Your task to perform on an android device: turn on sleep mode Image 0: 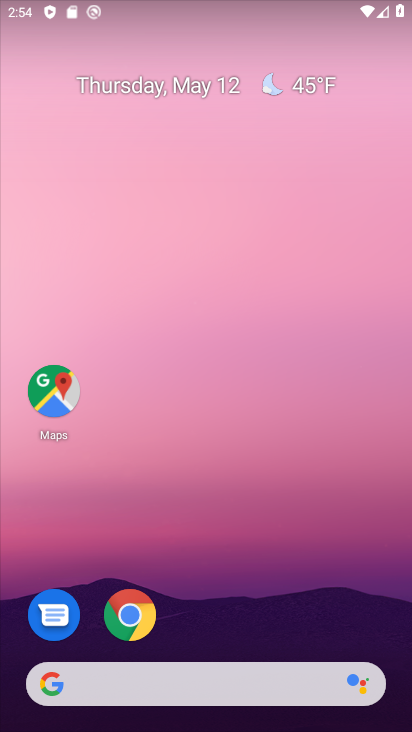
Step 0: drag from (250, 621) to (269, 0)
Your task to perform on an android device: turn on sleep mode Image 1: 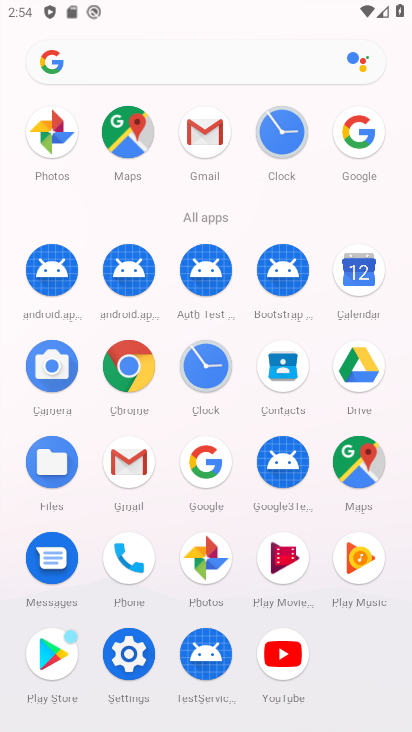
Step 1: click (116, 658)
Your task to perform on an android device: turn on sleep mode Image 2: 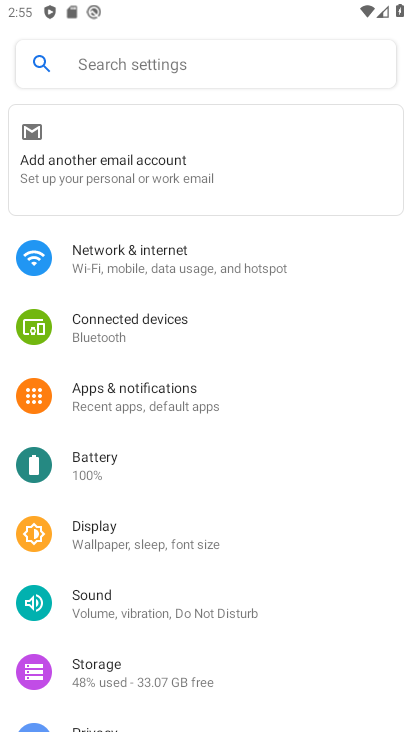
Step 2: drag from (200, 233) to (218, 193)
Your task to perform on an android device: turn on sleep mode Image 3: 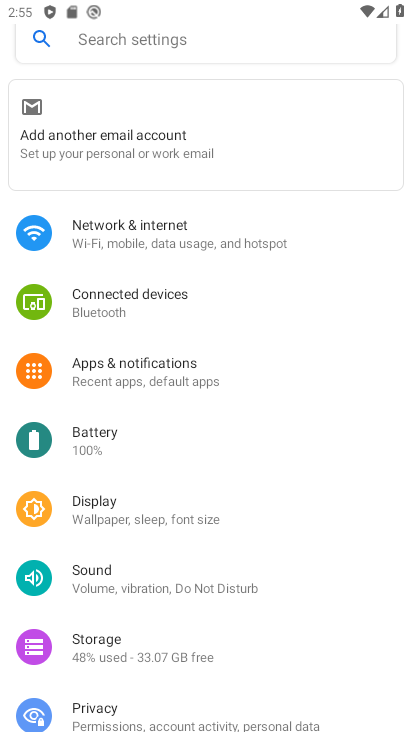
Step 3: drag from (212, 604) to (299, 201)
Your task to perform on an android device: turn on sleep mode Image 4: 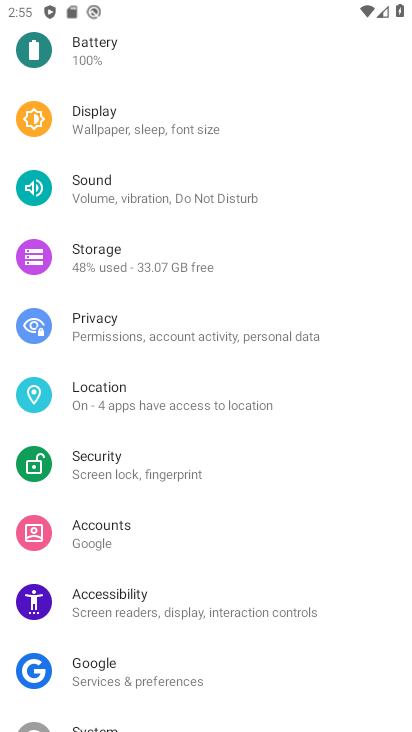
Step 4: click (257, 127)
Your task to perform on an android device: turn on sleep mode Image 5: 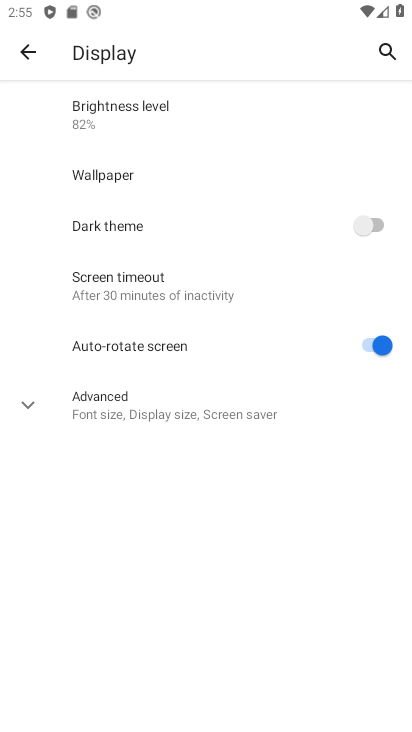
Step 5: click (187, 400)
Your task to perform on an android device: turn on sleep mode Image 6: 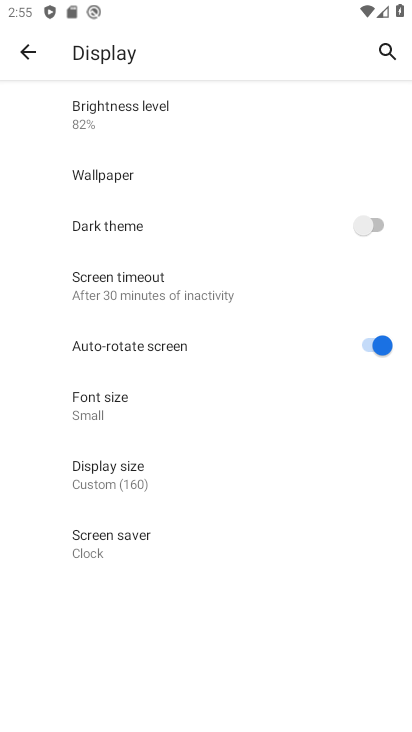
Step 6: task complete